Your task to perform on an android device: delete location history Image 0: 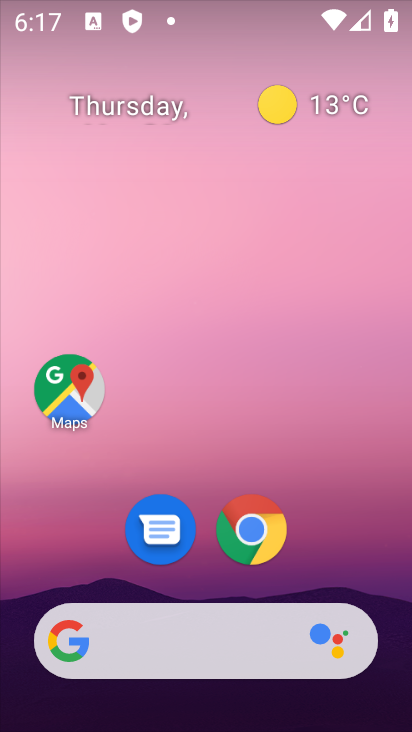
Step 0: drag from (294, 632) to (355, 28)
Your task to perform on an android device: delete location history Image 1: 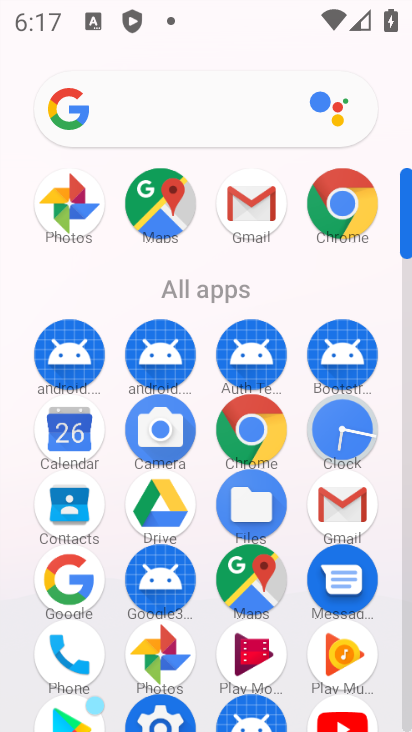
Step 1: click (273, 595)
Your task to perform on an android device: delete location history Image 2: 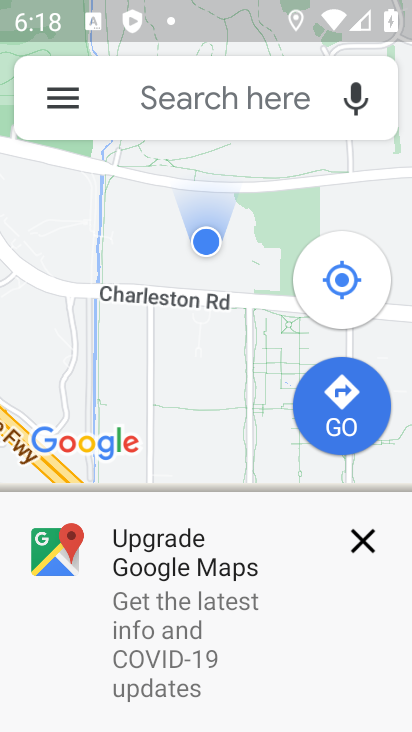
Step 2: drag from (54, 90) to (103, 443)
Your task to perform on an android device: delete location history Image 3: 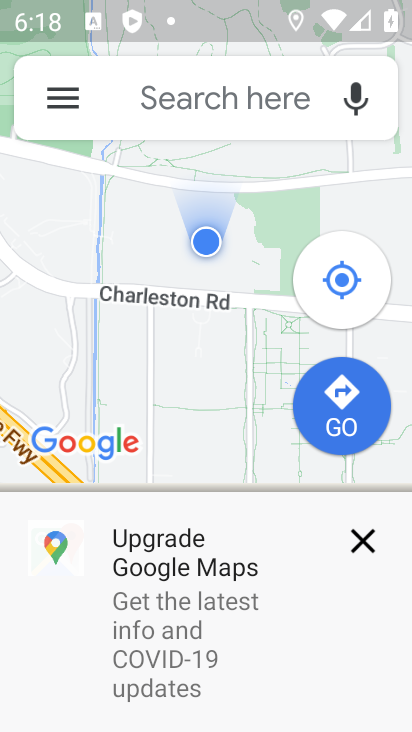
Step 3: click (61, 103)
Your task to perform on an android device: delete location history Image 4: 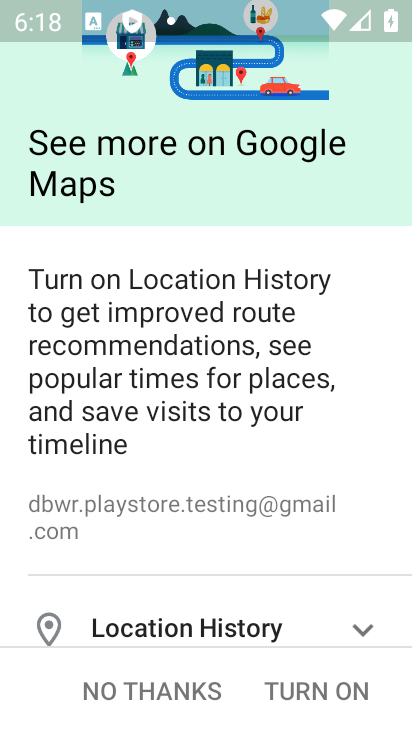
Step 4: click (201, 684)
Your task to perform on an android device: delete location history Image 5: 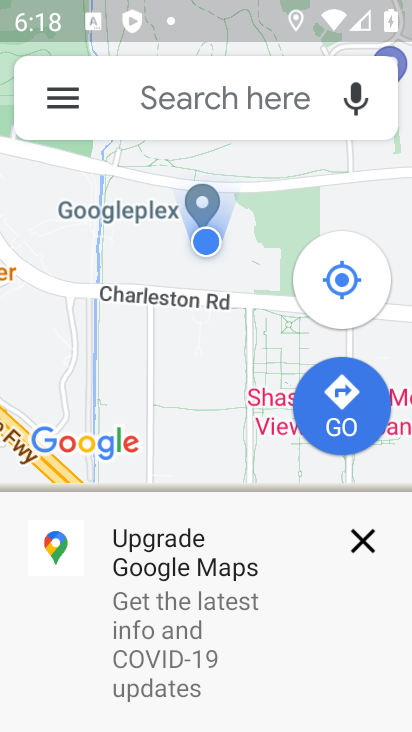
Step 5: click (75, 98)
Your task to perform on an android device: delete location history Image 6: 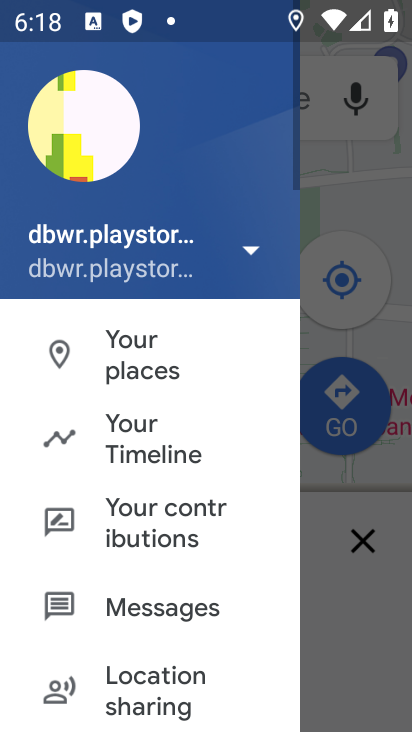
Step 6: click (142, 462)
Your task to perform on an android device: delete location history Image 7: 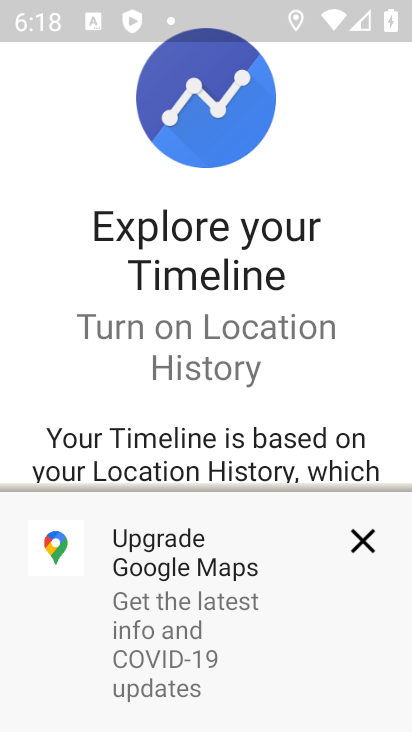
Step 7: click (365, 541)
Your task to perform on an android device: delete location history Image 8: 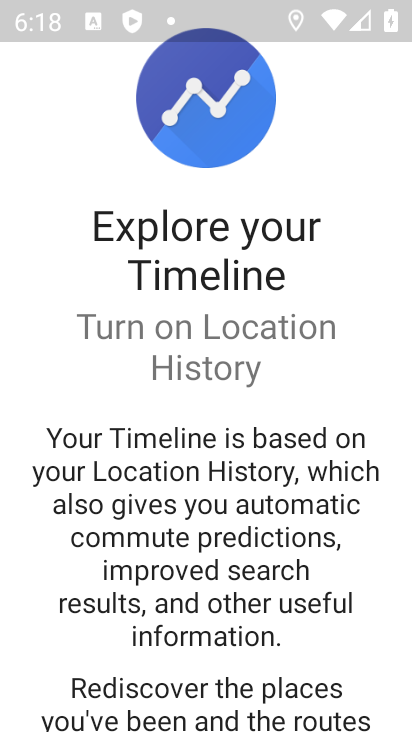
Step 8: drag from (303, 682) to (352, 23)
Your task to perform on an android device: delete location history Image 9: 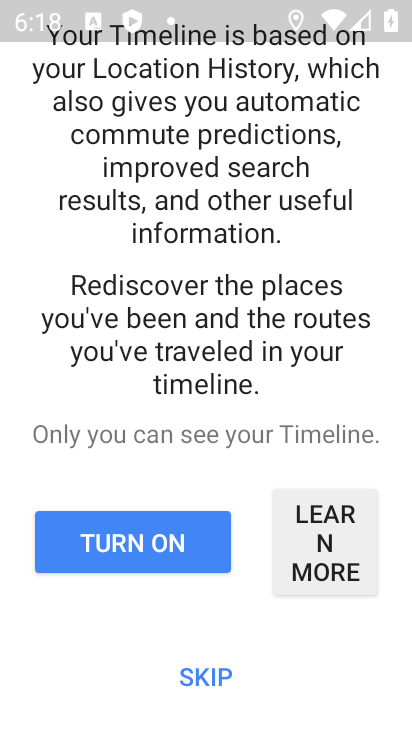
Step 9: click (215, 682)
Your task to perform on an android device: delete location history Image 10: 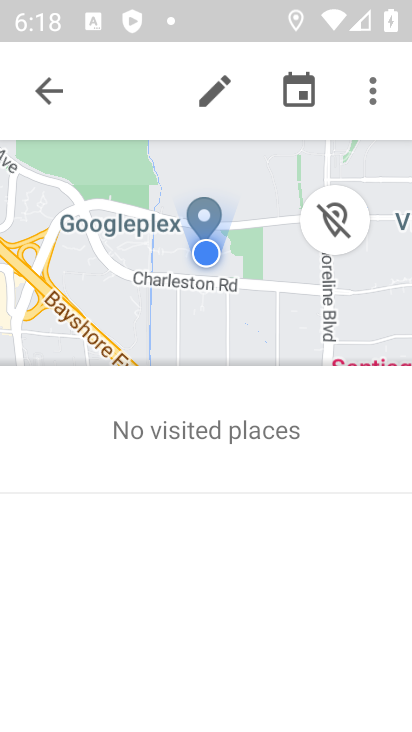
Step 10: click (379, 92)
Your task to perform on an android device: delete location history Image 11: 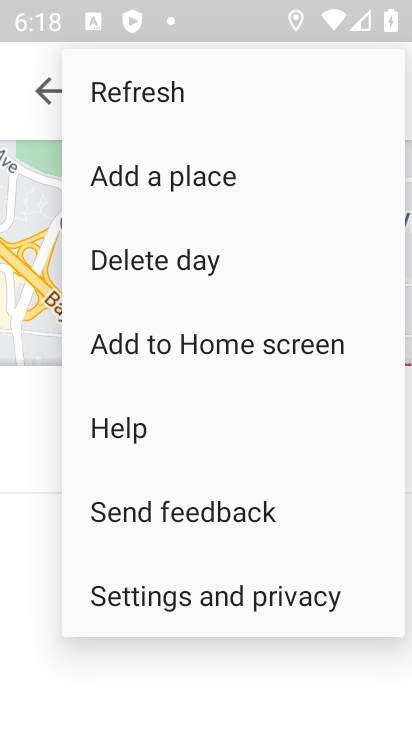
Step 11: click (239, 589)
Your task to perform on an android device: delete location history Image 12: 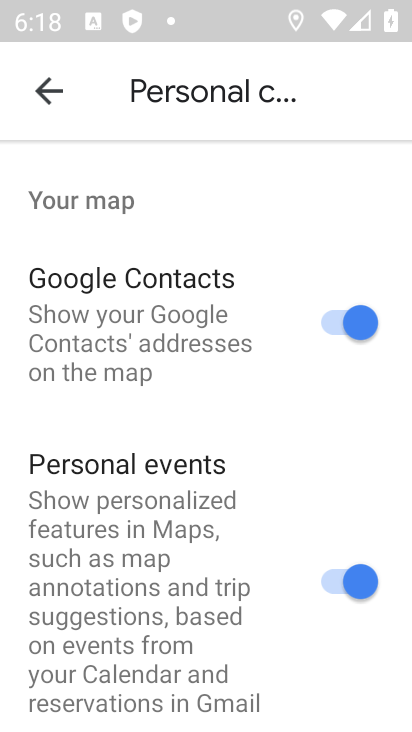
Step 12: drag from (246, 675) to (295, 155)
Your task to perform on an android device: delete location history Image 13: 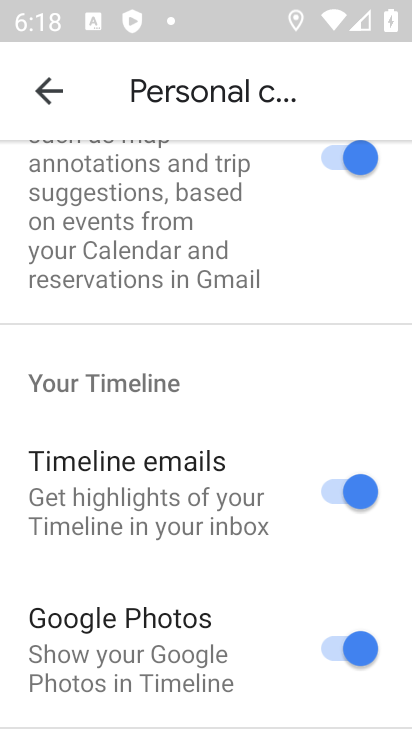
Step 13: drag from (228, 657) to (326, 43)
Your task to perform on an android device: delete location history Image 14: 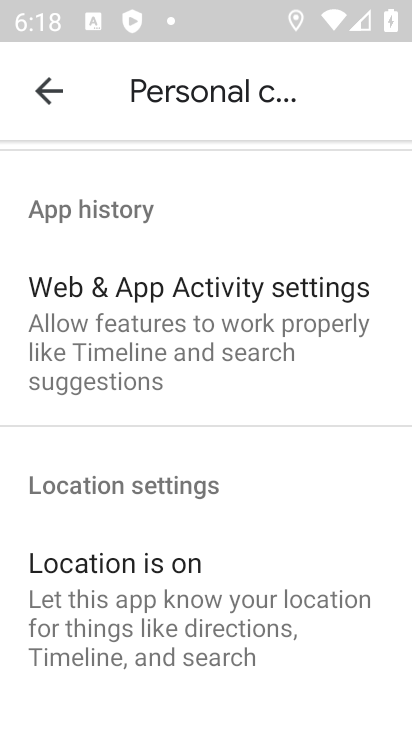
Step 14: drag from (250, 634) to (314, 77)
Your task to perform on an android device: delete location history Image 15: 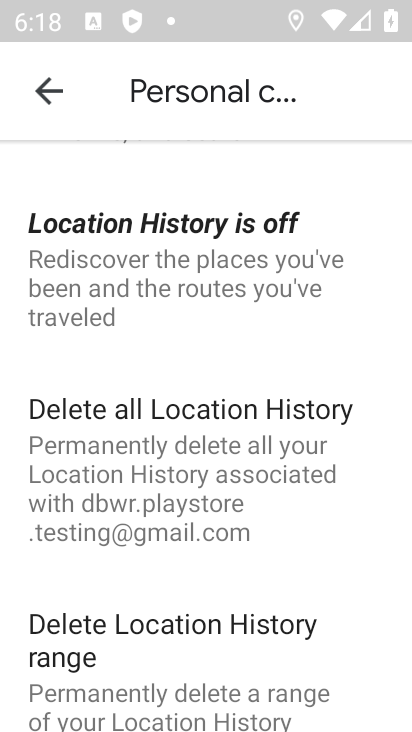
Step 15: click (234, 433)
Your task to perform on an android device: delete location history Image 16: 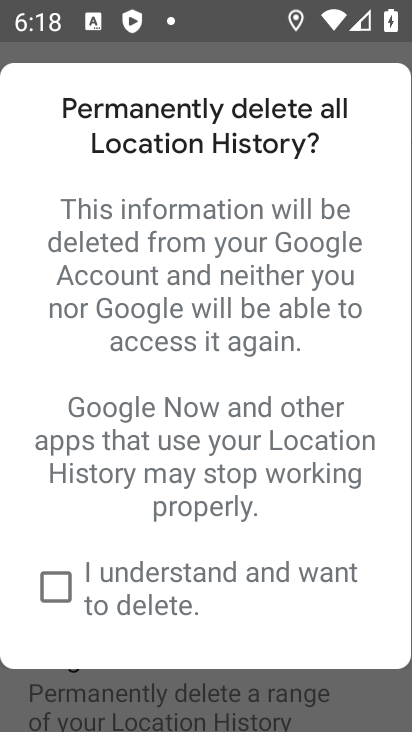
Step 16: click (57, 582)
Your task to perform on an android device: delete location history Image 17: 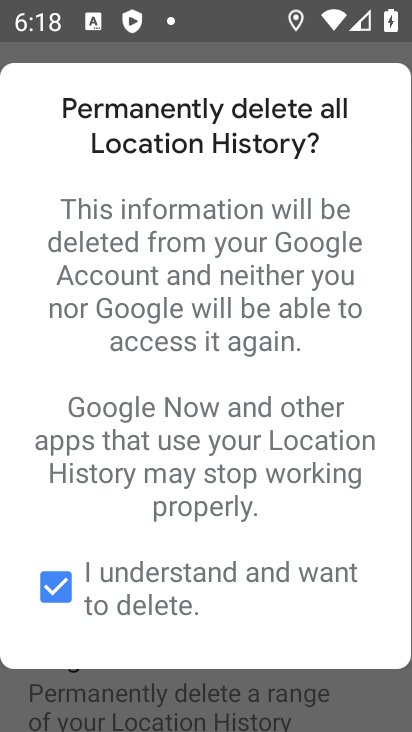
Step 17: task complete